Your task to perform on an android device: Open the calendar app, open the side menu, and click the "Day" option Image 0: 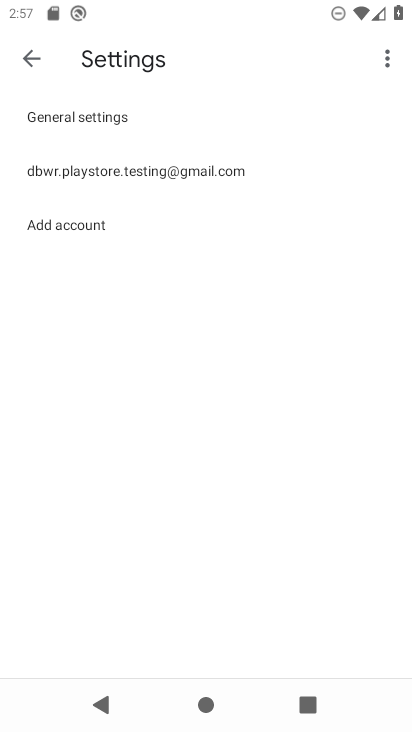
Step 0: press home button
Your task to perform on an android device: Open the calendar app, open the side menu, and click the "Day" option Image 1: 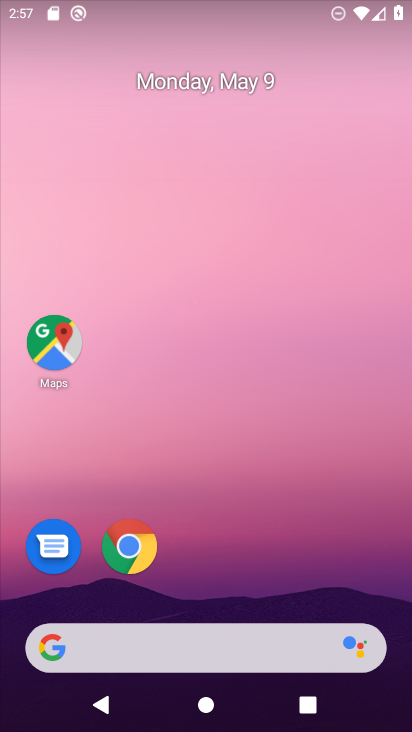
Step 1: drag from (209, 596) to (227, 130)
Your task to perform on an android device: Open the calendar app, open the side menu, and click the "Day" option Image 2: 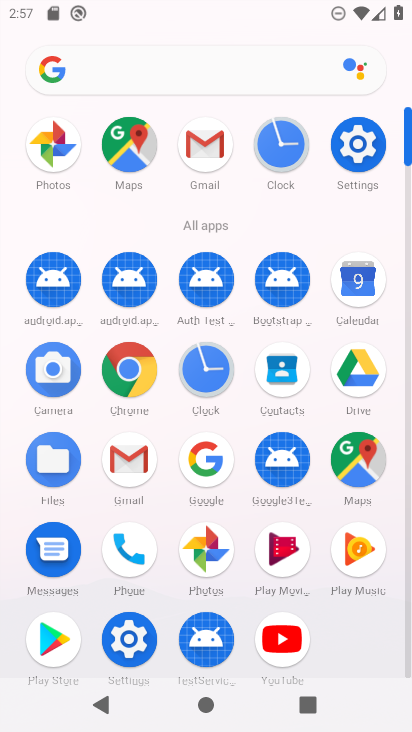
Step 2: click (343, 279)
Your task to perform on an android device: Open the calendar app, open the side menu, and click the "Day" option Image 3: 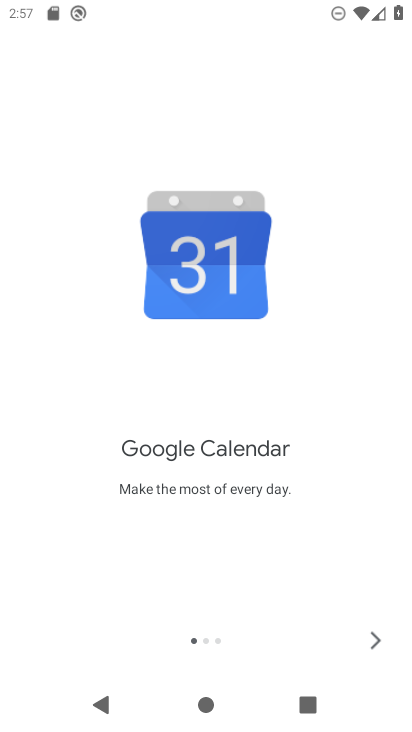
Step 3: click (377, 644)
Your task to perform on an android device: Open the calendar app, open the side menu, and click the "Day" option Image 4: 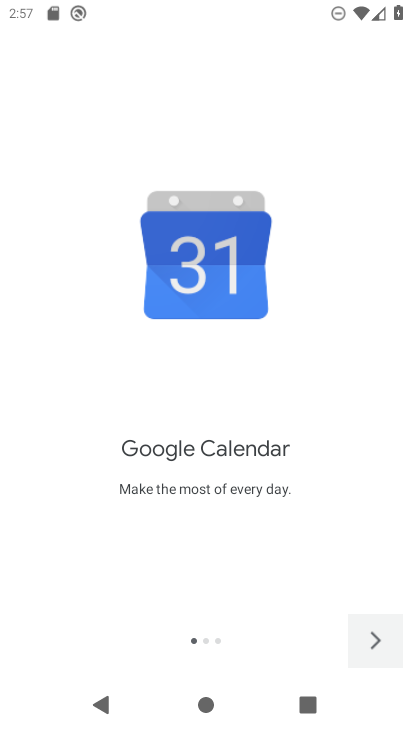
Step 4: click (377, 644)
Your task to perform on an android device: Open the calendar app, open the side menu, and click the "Day" option Image 5: 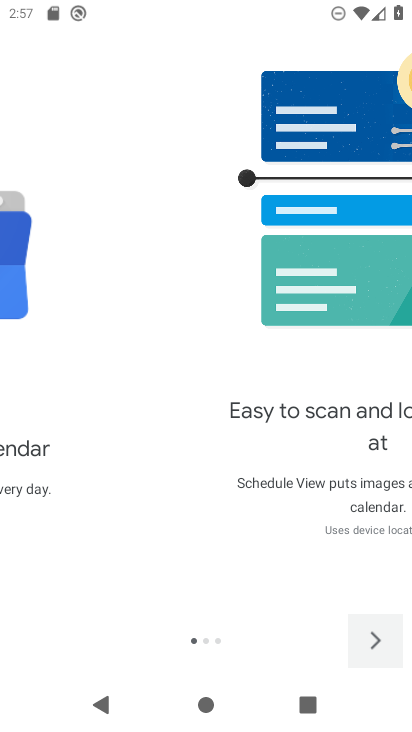
Step 5: click (377, 644)
Your task to perform on an android device: Open the calendar app, open the side menu, and click the "Day" option Image 6: 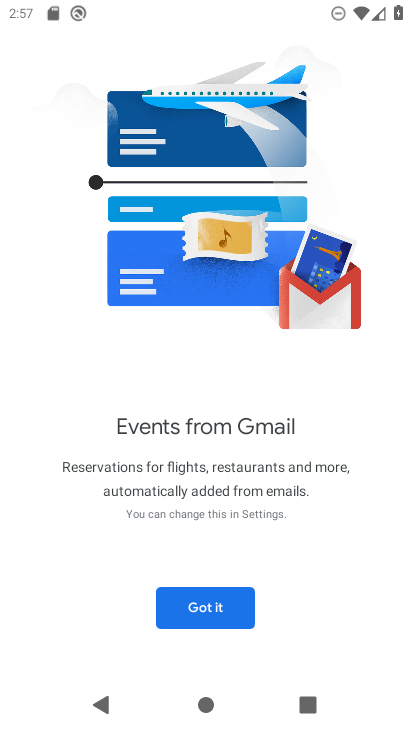
Step 6: click (195, 610)
Your task to perform on an android device: Open the calendar app, open the side menu, and click the "Day" option Image 7: 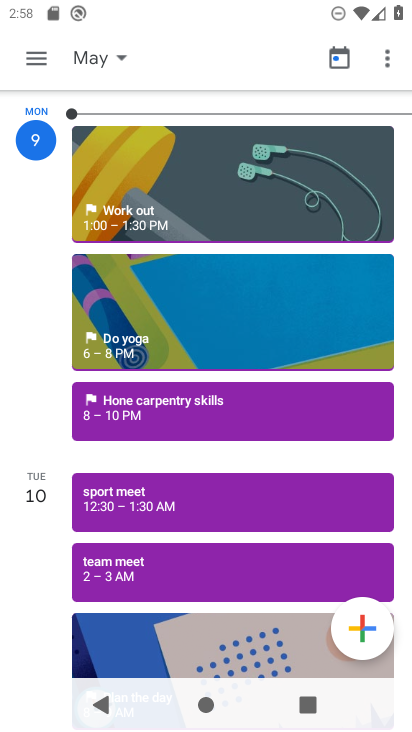
Step 7: click (35, 57)
Your task to perform on an android device: Open the calendar app, open the side menu, and click the "Day" option Image 8: 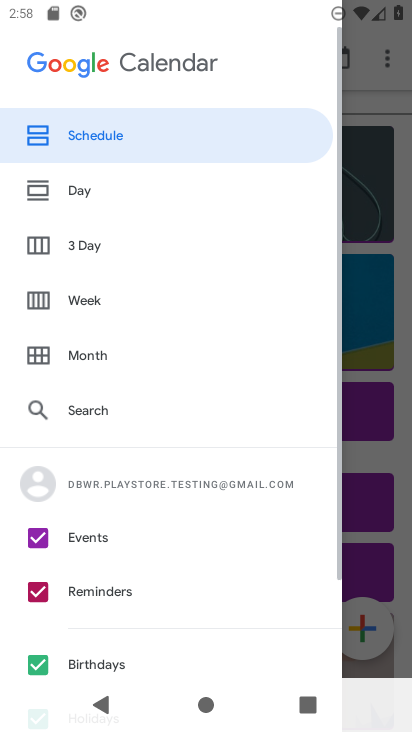
Step 8: click (89, 202)
Your task to perform on an android device: Open the calendar app, open the side menu, and click the "Day" option Image 9: 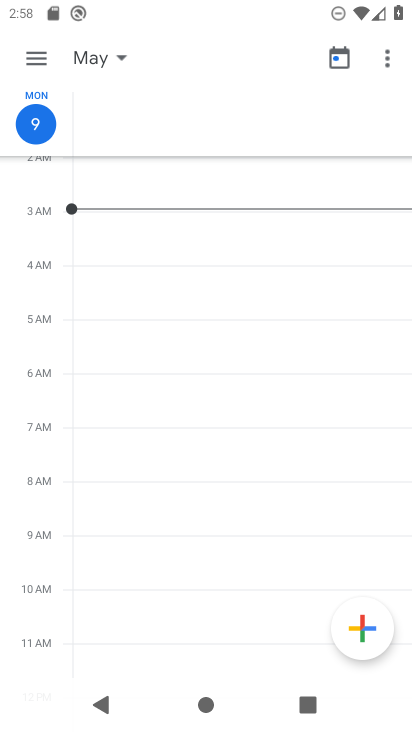
Step 9: task complete